Your task to perform on an android device: Search for "The Dispatcher" by John Scalzi on Goodreads Image 0: 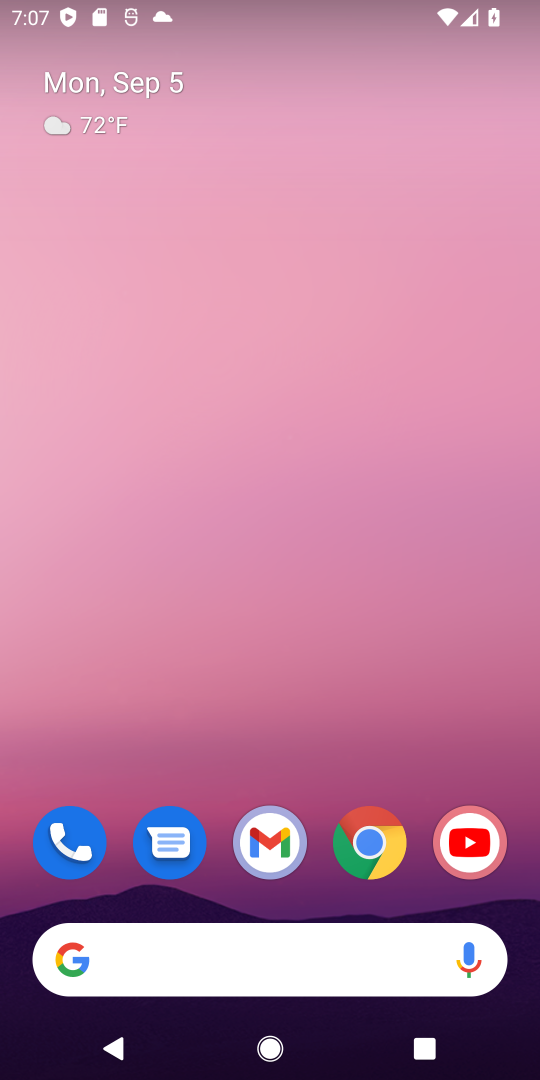
Step 0: click (376, 843)
Your task to perform on an android device: Search for "The Dispatcher" by John Scalzi on Goodreads Image 1: 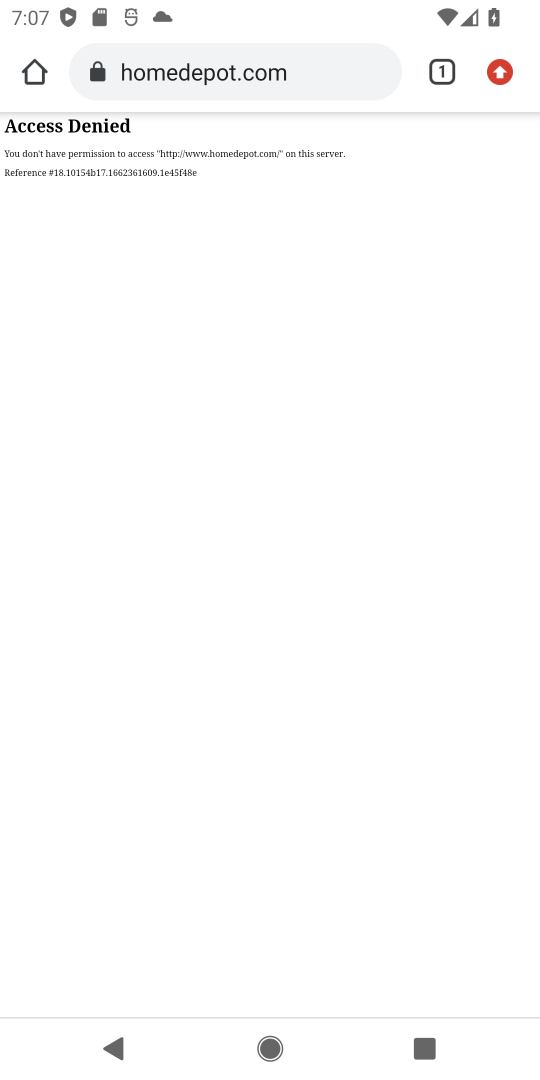
Step 1: click (338, 80)
Your task to perform on an android device: Search for "The Dispatcher" by John Scalzi on Goodreads Image 2: 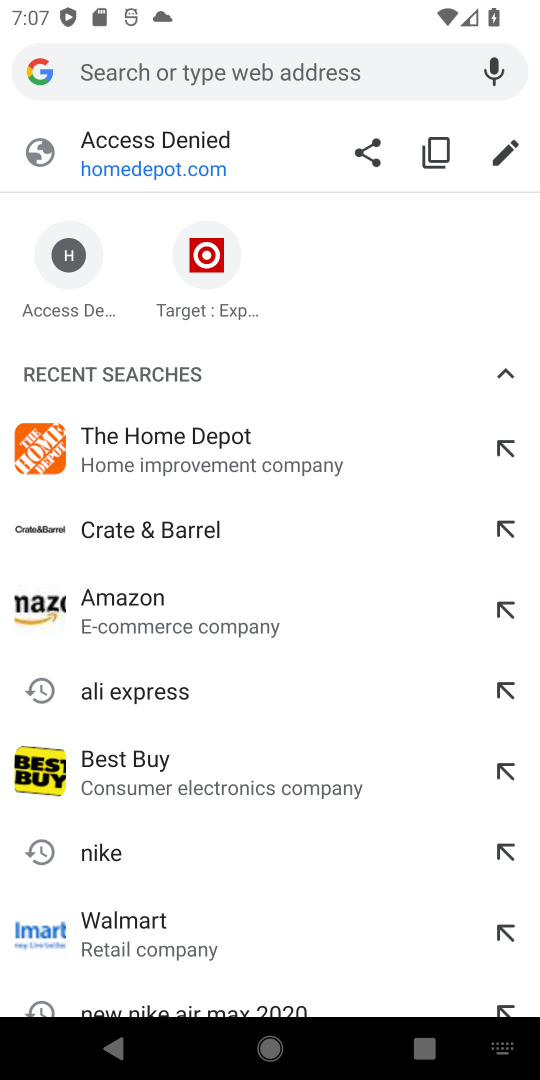
Step 2: type "The DIspatcher by John Scalzi"
Your task to perform on an android device: Search for "The Dispatcher" by John Scalzi on Goodreads Image 3: 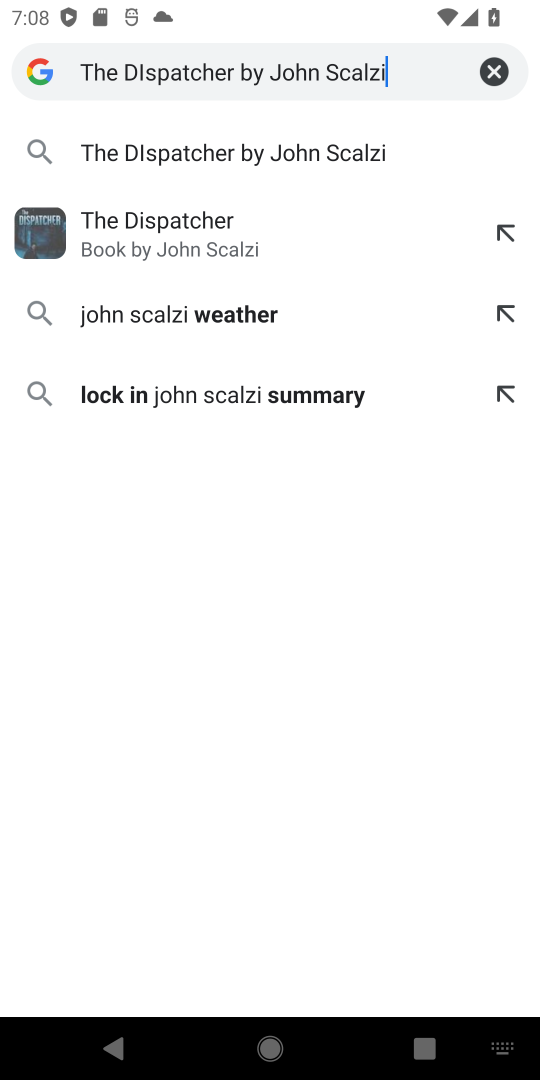
Step 3: click (212, 161)
Your task to perform on an android device: Search for "The Dispatcher" by John Scalzi on Goodreads Image 4: 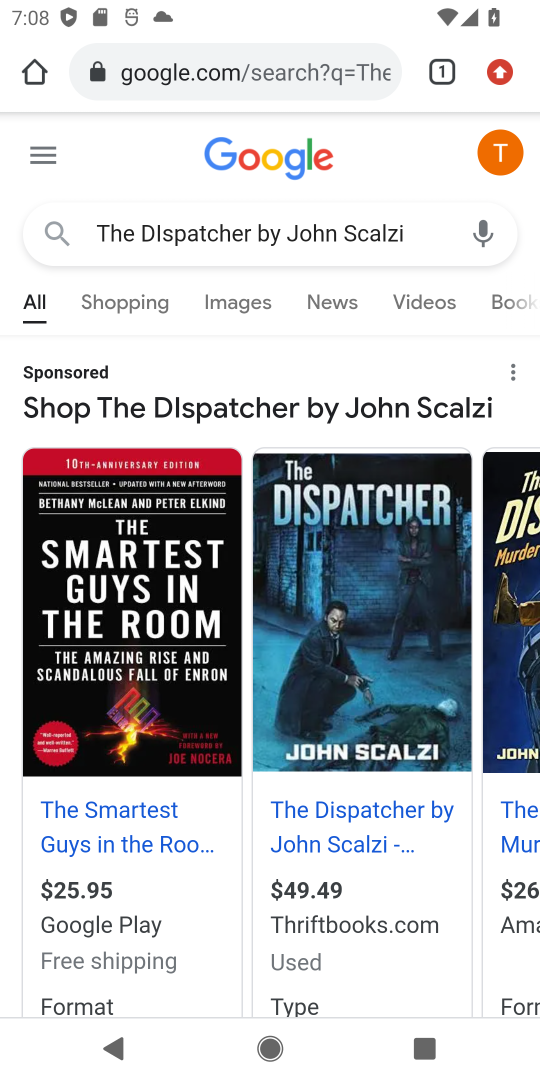
Step 4: drag from (267, 376) to (325, 203)
Your task to perform on an android device: Search for "The Dispatcher" by John Scalzi on Goodreads Image 5: 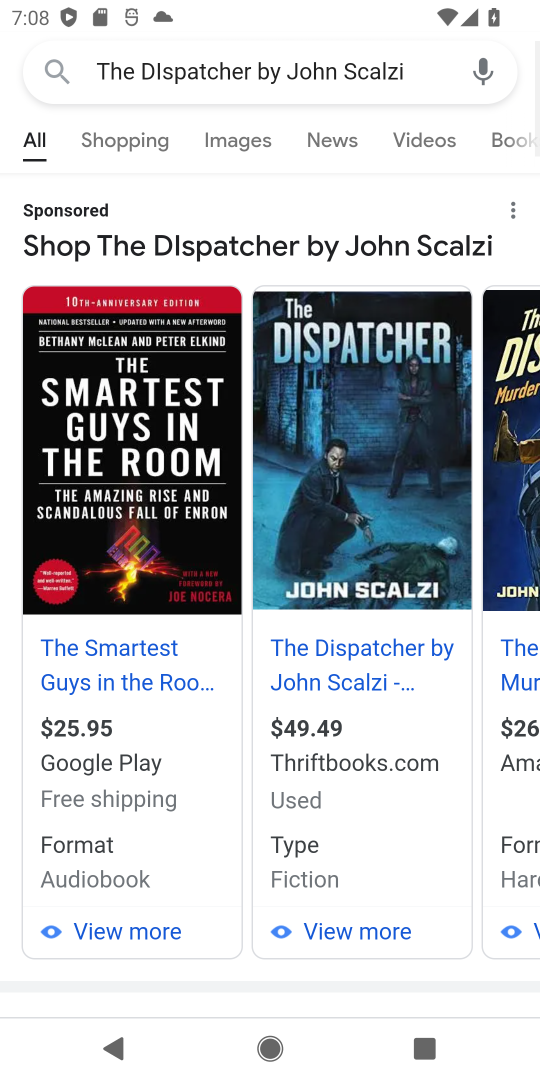
Step 5: drag from (223, 998) to (407, 697)
Your task to perform on an android device: Search for "The Dispatcher" by John Scalzi on Goodreads Image 6: 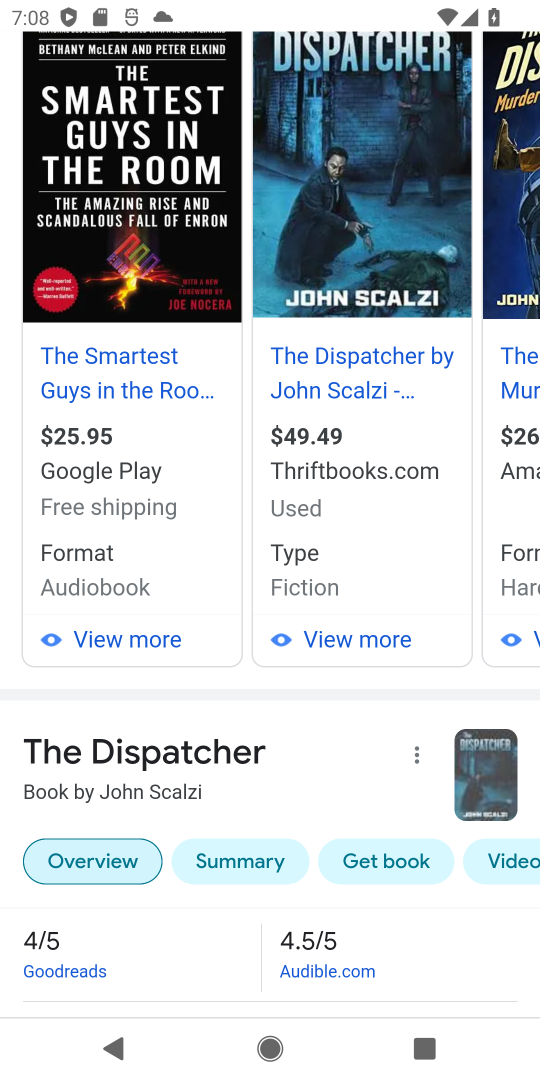
Step 6: drag from (231, 894) to (366, 648)
Your task to perform on an android device: Search for "The Dispatcher" by John Scalzi on Goodreads Image 7: 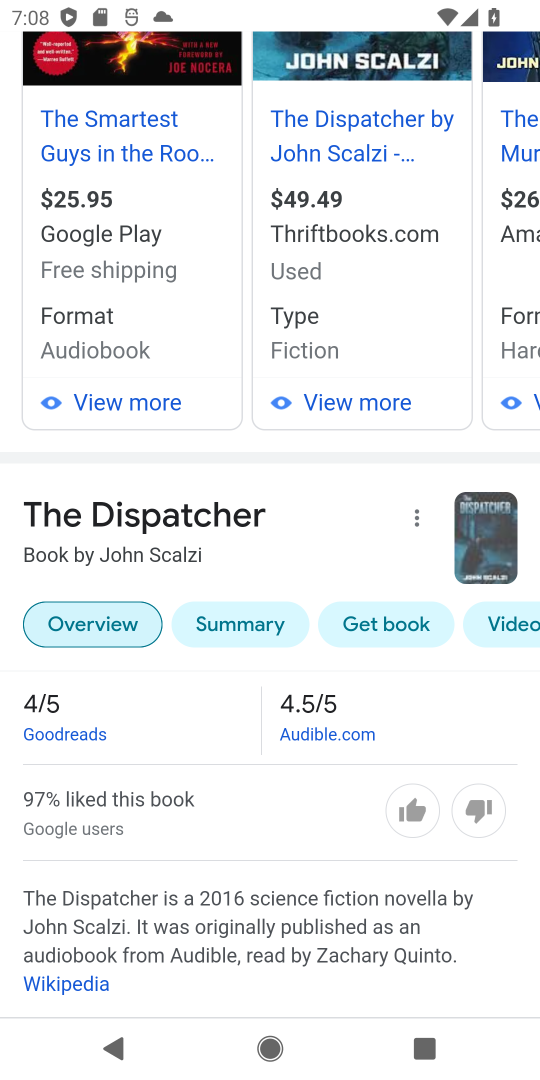
Step 7: drag from (234, 858) to (342, 672)
Your task to perform on an android device: Search for "The Dispatcher" by John Scalzi on Goodreads Image 8: 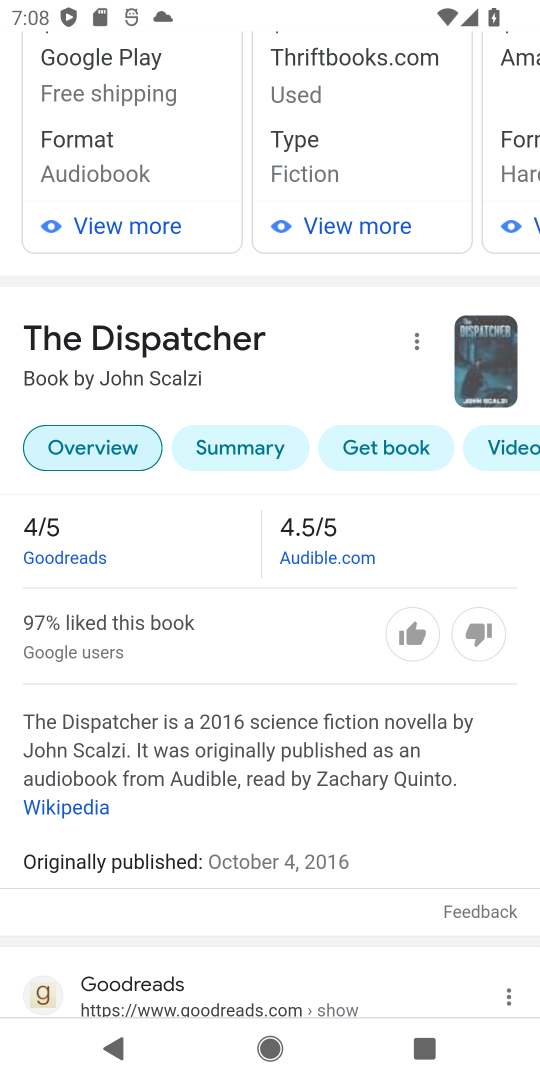
Step 8: drag from (193, 842) to (300, 659)
Your task to perform on an android device: Search for "The Dispatcher" by John Scalzi on Goodreads Image 9: 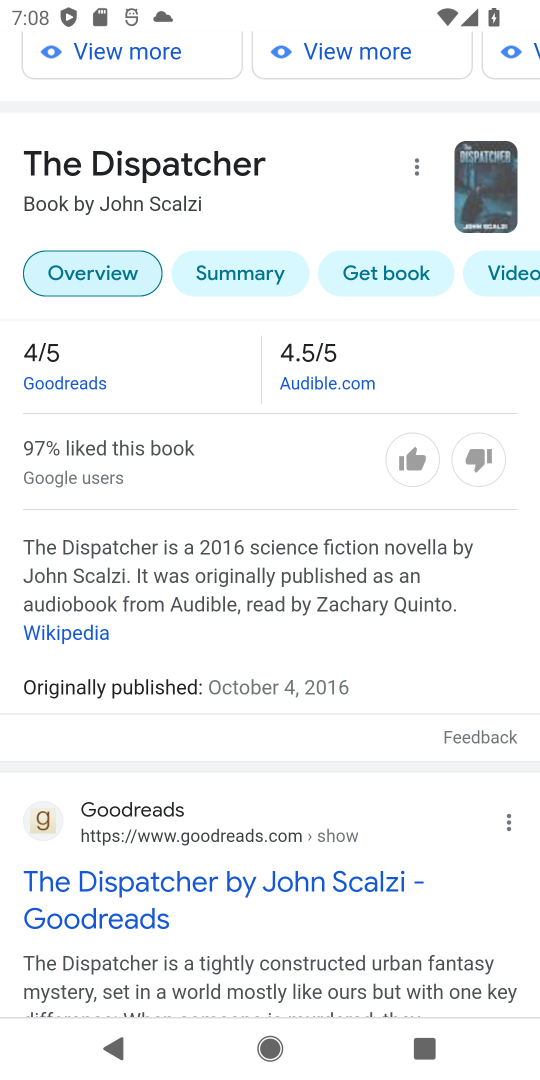
Step 9: drag from (305, 833) to (341, 780)
Your task to perform on an android device: Search for "The Dispatcher" by John Scalzi on Goodreads Image 10: 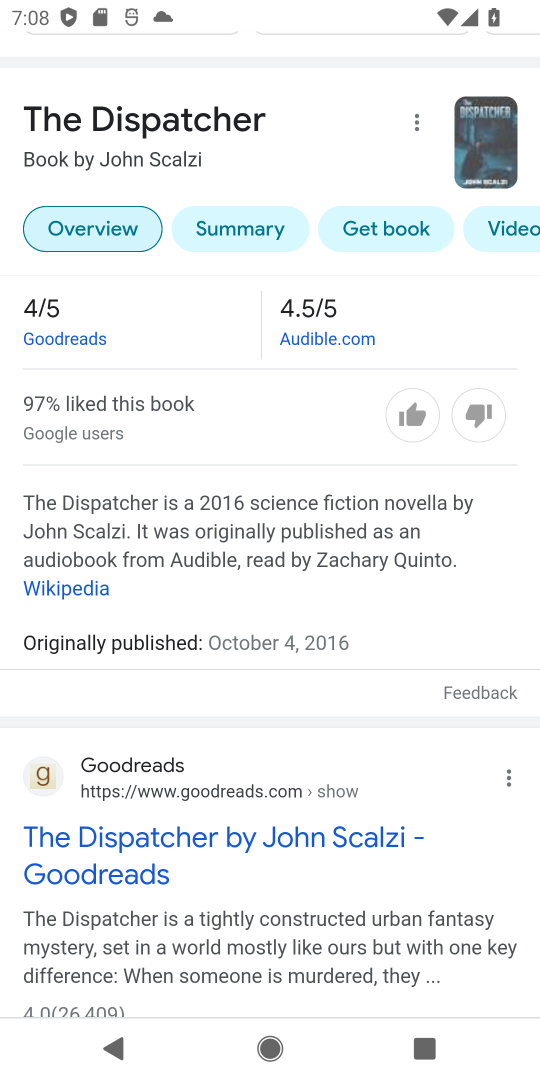
Step 10: click (324, 824)
Your task to perform on an android device: Search for "The Dispatcher" by John Scalzi on Goodreads Image 11: 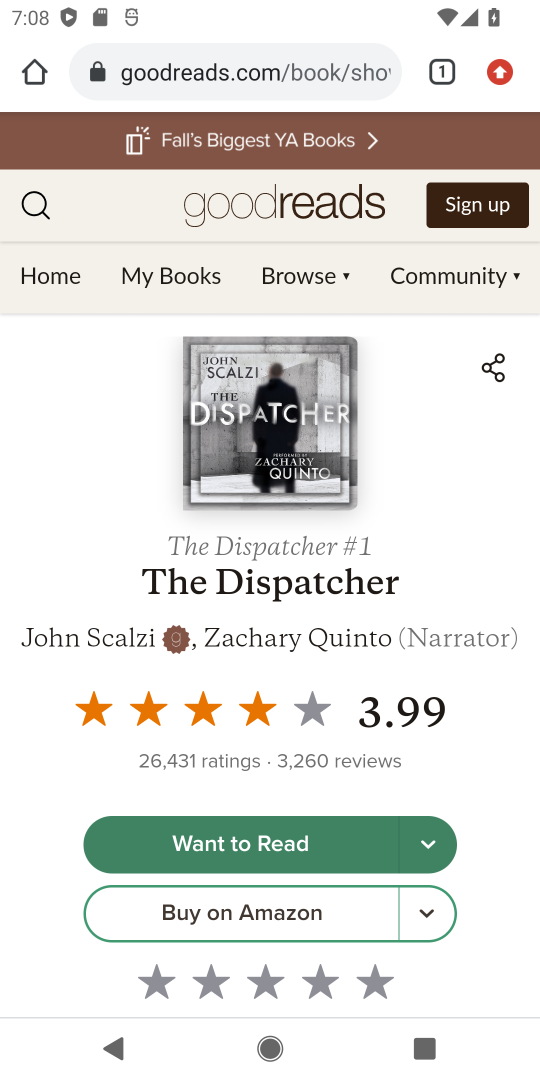
Step 11: task complete